Your task to perform on an android device: Open privacy settings Image 0: 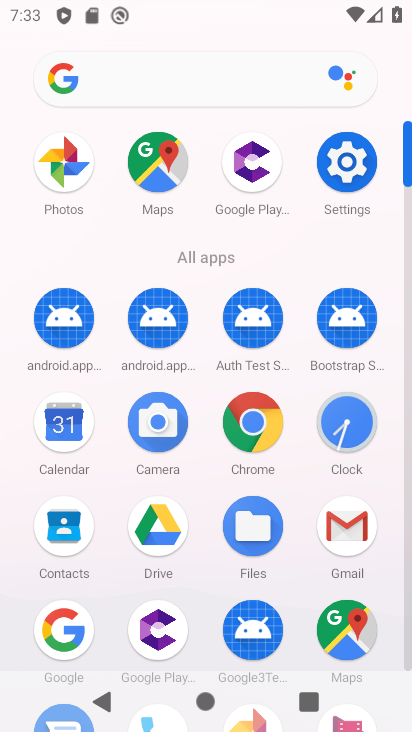
Step 0: click (344, 155)
Your task to perform on an android device: Open privacy settings Image 1: 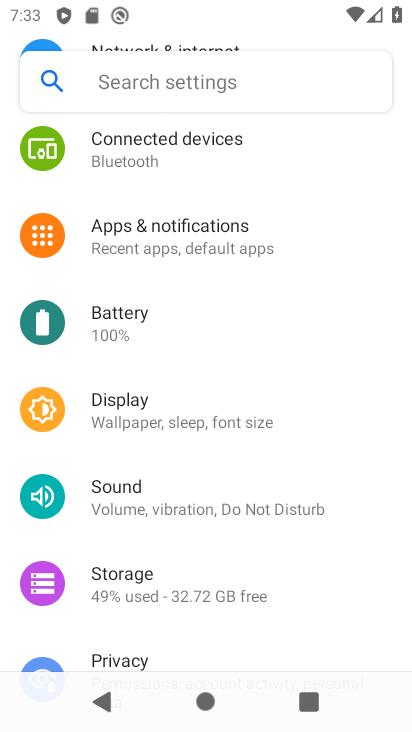
Step 1: drag from (222, 317) to (211, 171)
Your task to perform on an android device: Open privacy settings Image 2: 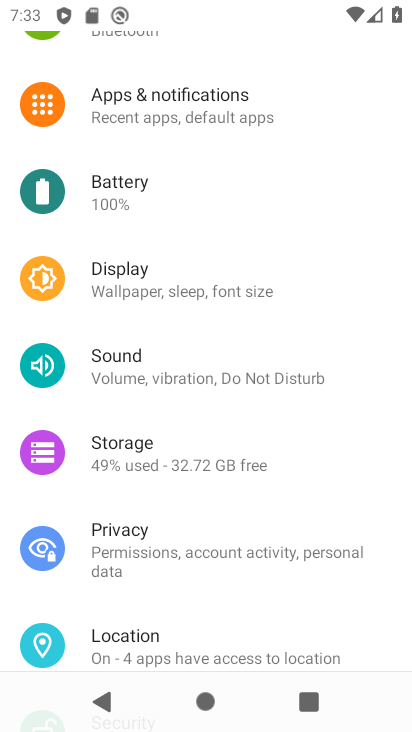
Step 2: click (161, 534)
Your task to perform on an android device: Open privacy settings Image 3: 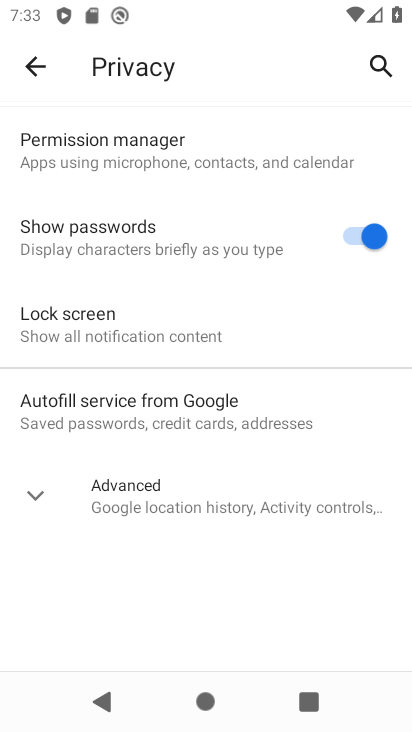
Step 3: task complete